Your task to perform on an android device: check battery use Image 0: 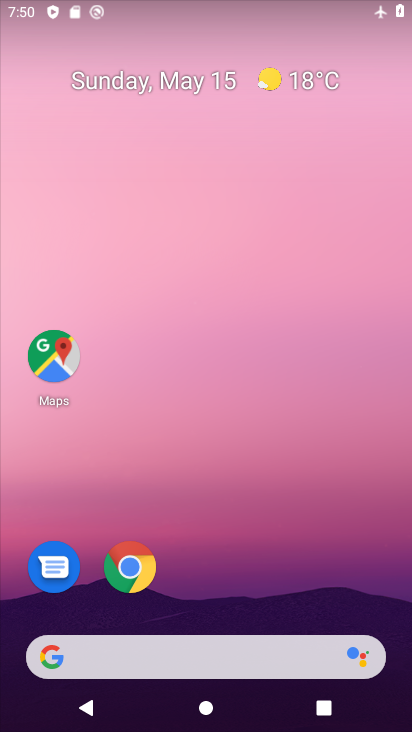
Step 0: drag from (160, 703) to (305, 14)
Your task to perform on an android device: check battery use Image 1: 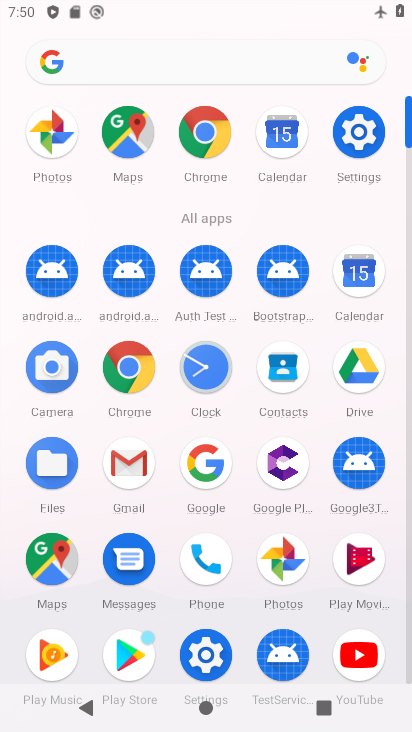
Step 1: click (366, 135)
Your task to perform on an android device: check battery use Image 2: 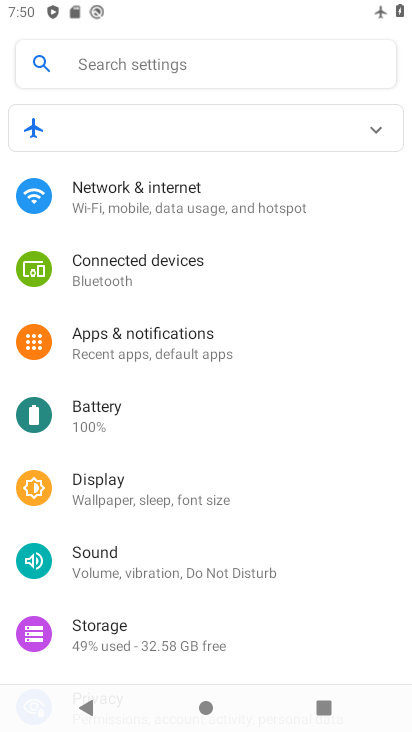
Step 2: click (181, 417)
Your task to perform on an android device: check battery use Image 3: 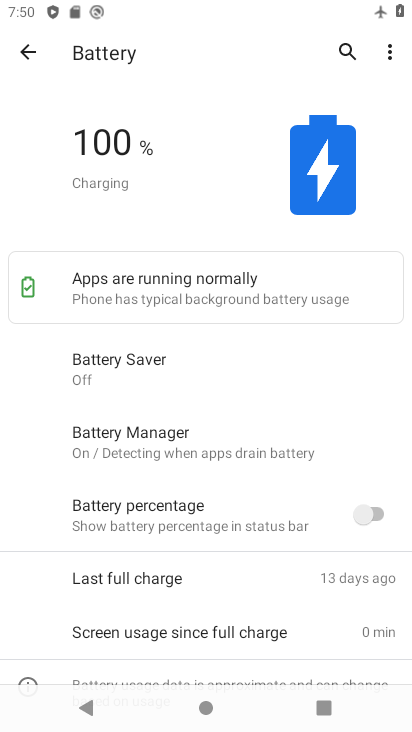
Step 3: click (388, 48)
Your task to perform on an android device: check battery use Image 4: 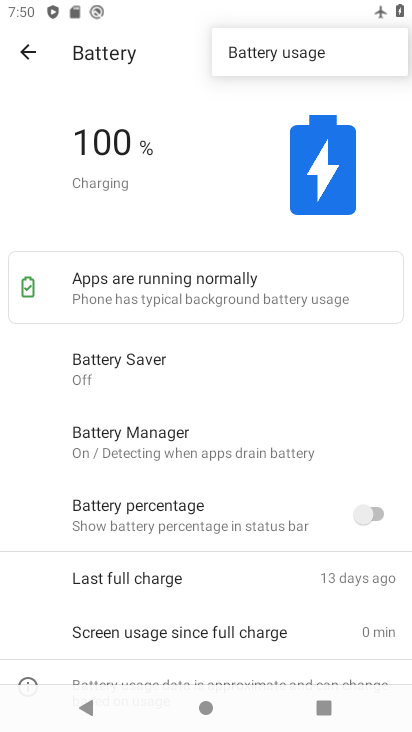
Step 4: click (349, 53)
Your task to perform on an android device: check battery use Image 5: 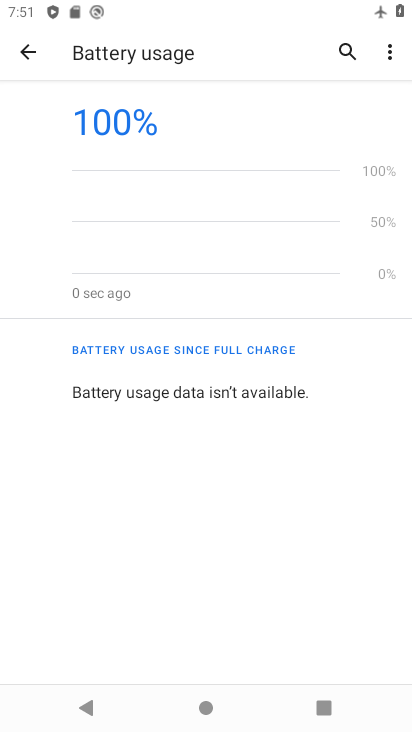
Step 5: task complete